Your task to perform on an android device: Open my contact list Image 0: 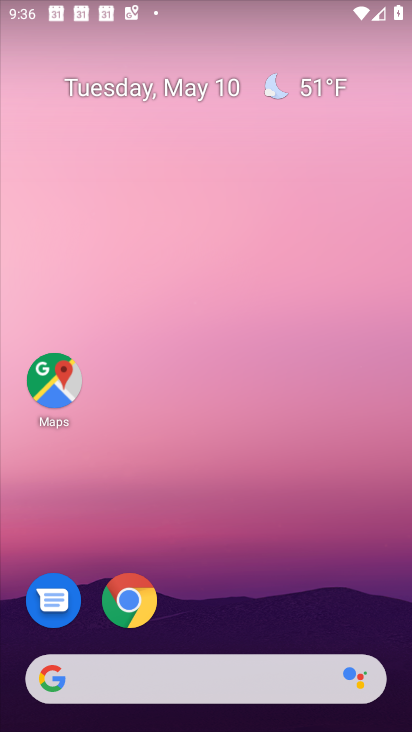
Step 0: drag from (338, 446) to (319, 2)
Your task to perform on an android device: Open my contact list Image 1: 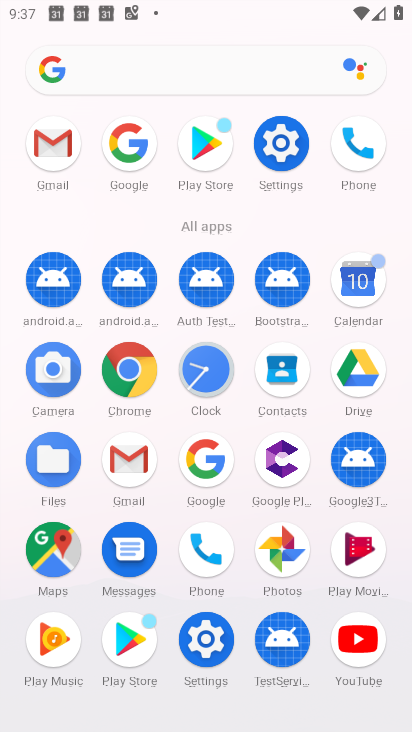
Step 1: click (282, 371)
Your task to perform on an android device: Open my contact list Image 2: 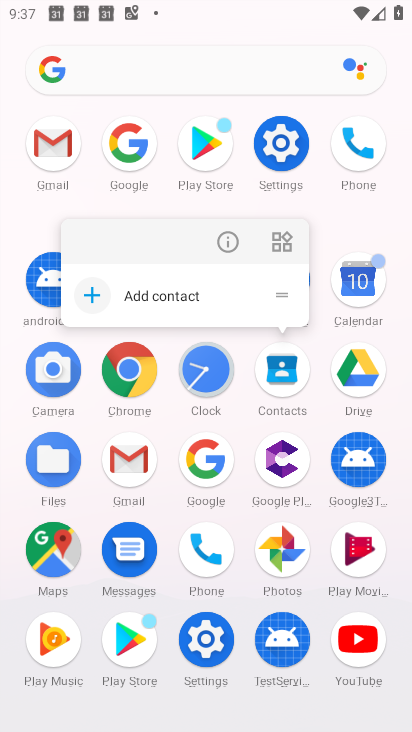
Step 2: click (278, 365)
Your task to perform on an android device: Open my contact list Image 3: 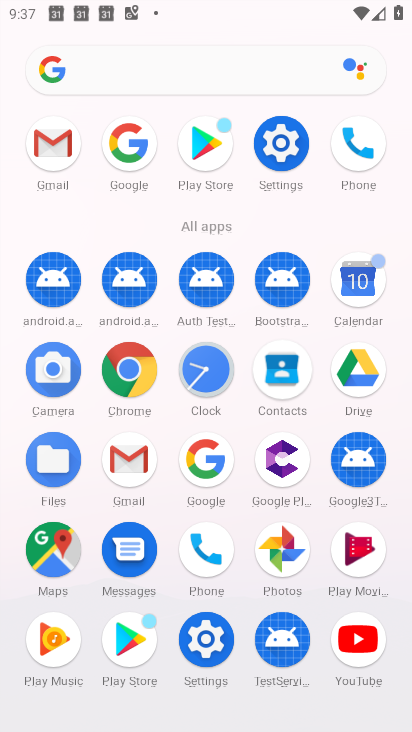
Step 3: click (279, 364)
Your task to perform on an android device: Open my contact list Image 4: 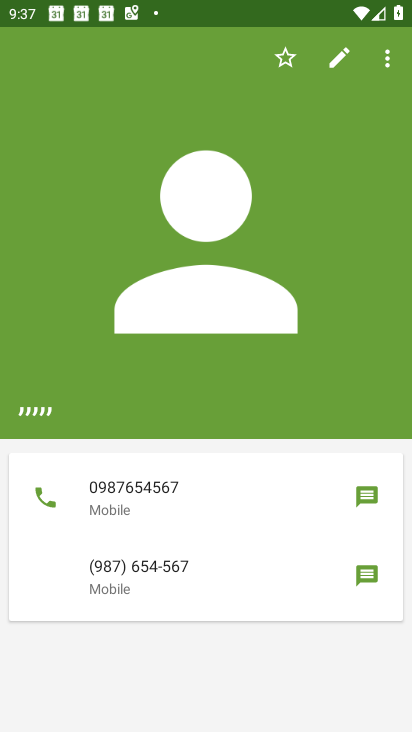
Step 4: task complete